Your task to perform on an android device: Open Amazon Image 0: 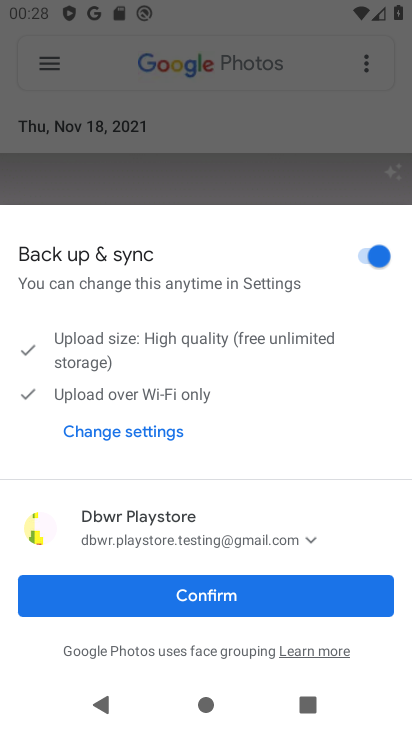
Step 0: click (141, 607)
Your task to perform on an android device: Open Amazon Image 1: 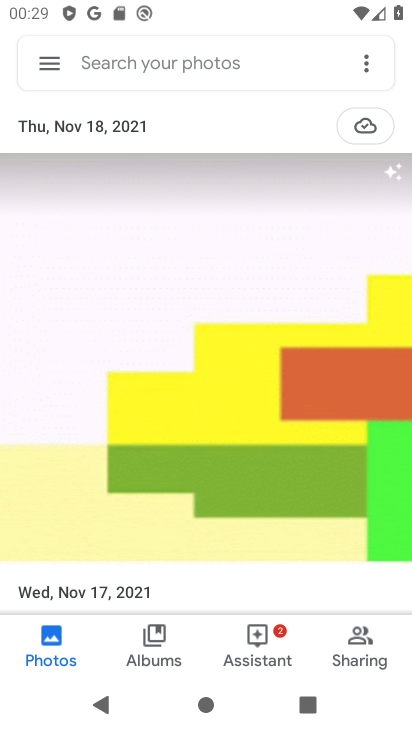
Step 1: press home button
Your task to perform on an android device: Open Amazon Image 2: 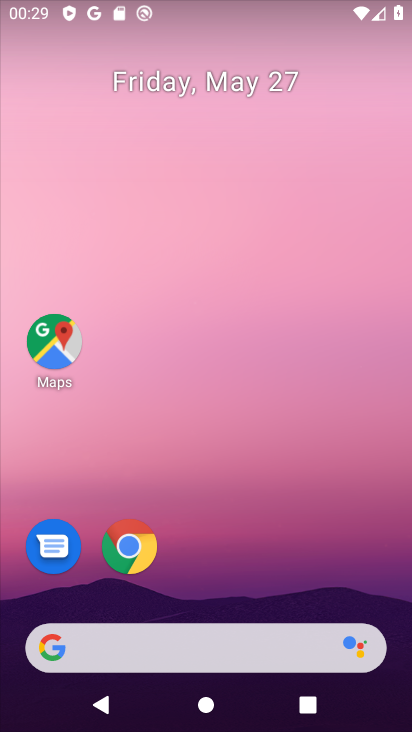
Step 2: drag from (278, 507) to (242, 161)
Your task to perform on an android device: Open Amazon Image 3: 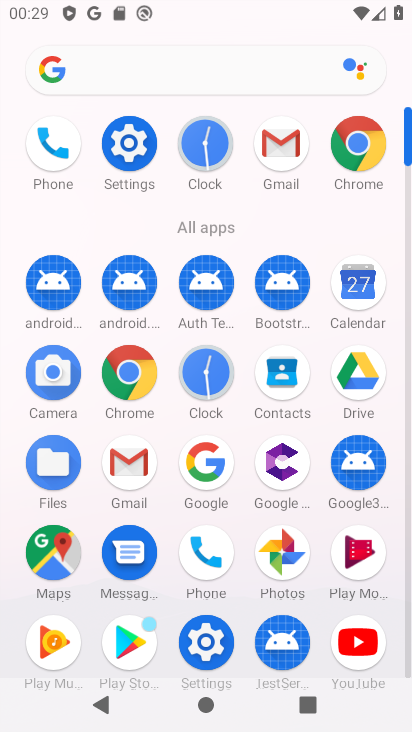
Step 3: click (138, 376)
Your task to perform on an android device: Open Amazon Image 4: 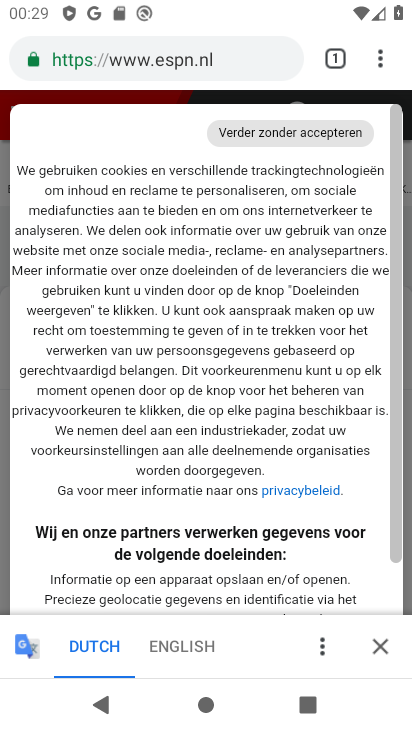
Step 4: click (201, 53)
Your task to perform on an android device: Open Amazon Image 5: 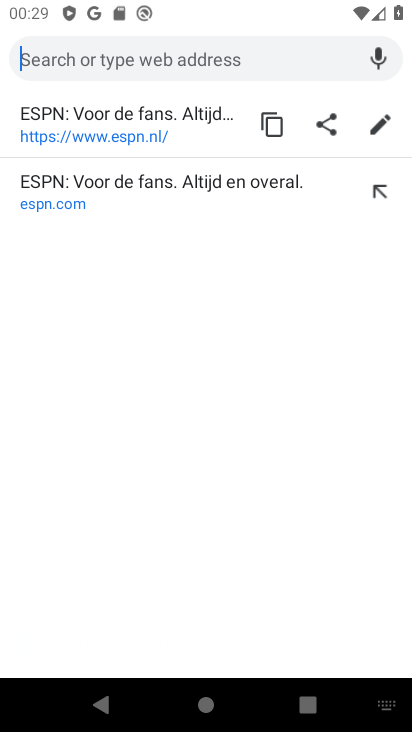
Step 5: type "amazon"
Your task to perform on an android device: Open Amazon Image 6: 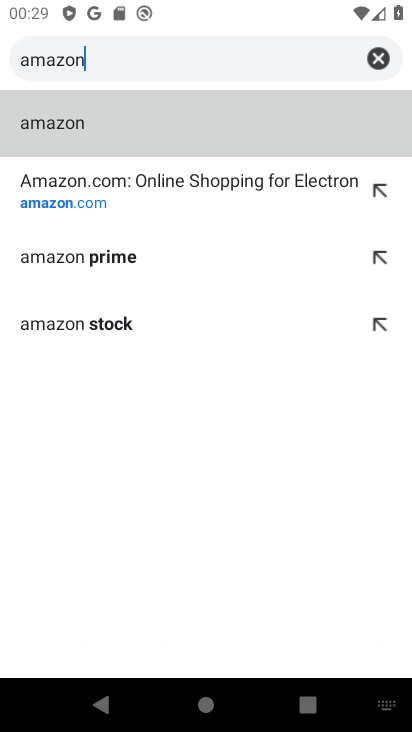
Step 6: click (110, 139)
Your task to perform on an android device: Open Amazon Image 7: 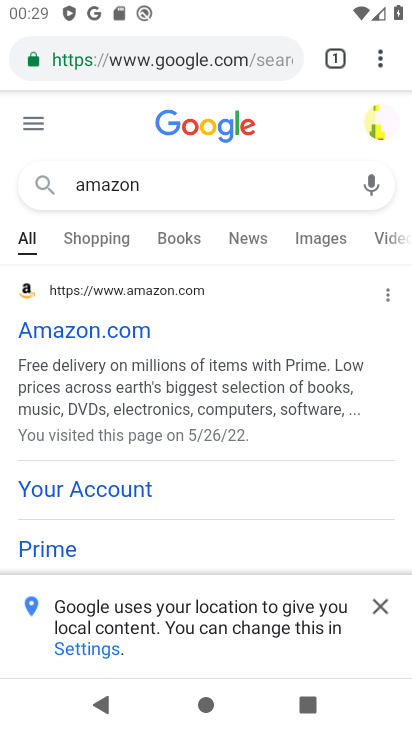
Step 7: task complete